Your task to perform on an android device: turn on location history Image 0: 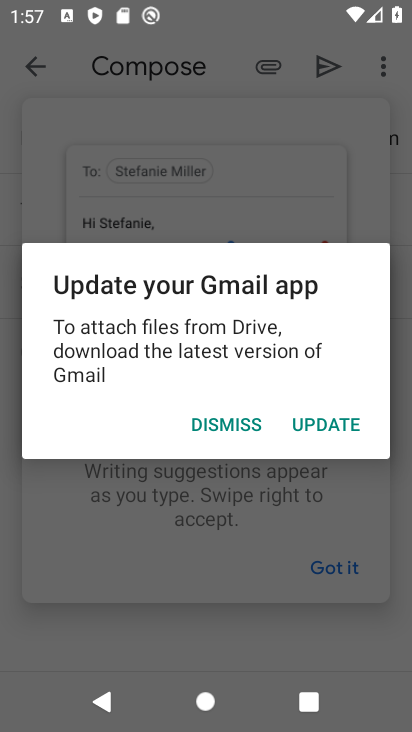
Step 0: press home button
Your task to perform on an android device: turn on location history Image 1: 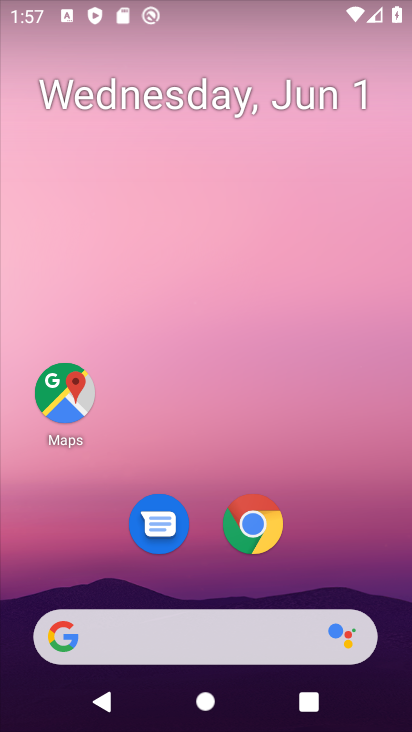
Step 1: drag from (304, 543) to (313, 5)
Your task to perform on an android device: turn on location history Image 2: 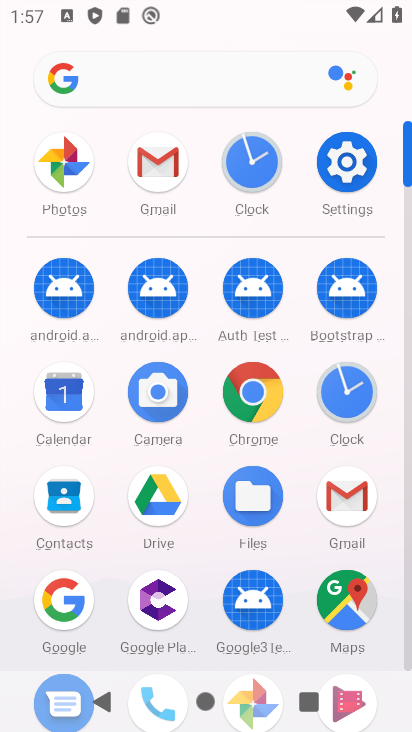
Step 2: click (339, 155)
Your task to perform on an android device: turn on location history Image 3: 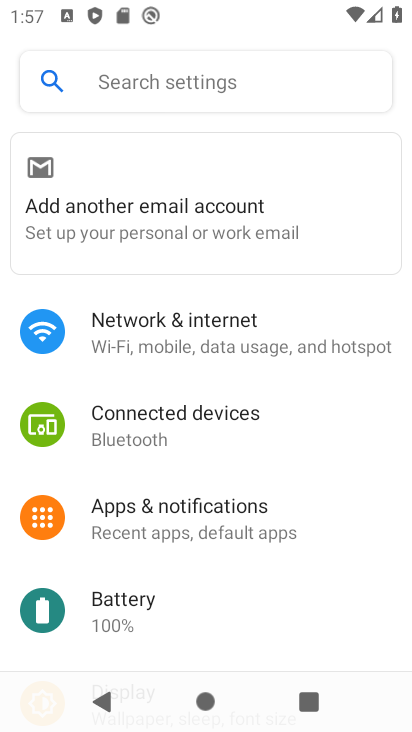
Step 3: drag from (229, 595) to (287, 39)
Your task to perform on an android device: turn on location history Image 4: 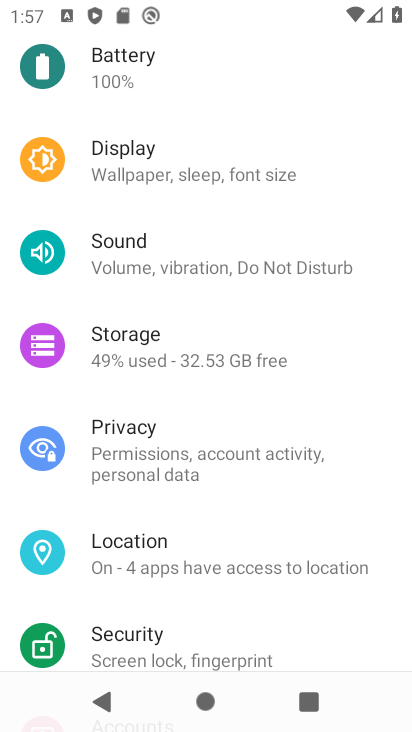
Step 4: click (191, 549)
Your task to perform on an android device: turn on location history Image 5: 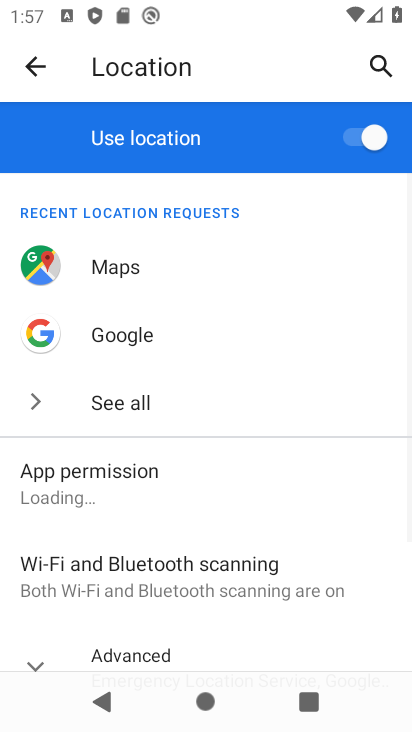
Step 5: drag from (220, 486) to (227, 243)
Your task to perform on an android device: turn on location history Image 6: 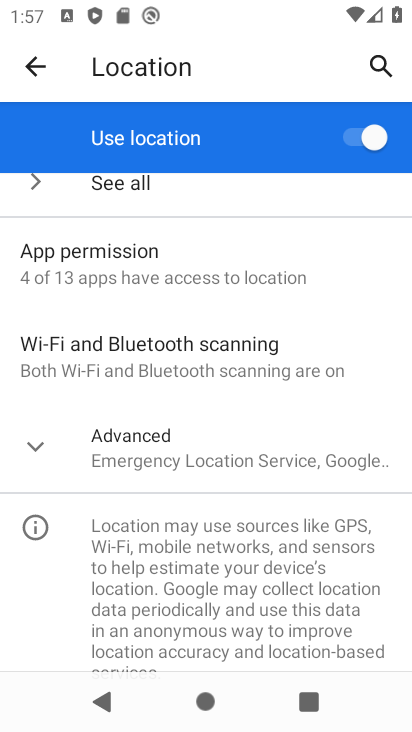
Step 6: click (34, 446)
Your task to perform on an android device: turn on location history Image 7: 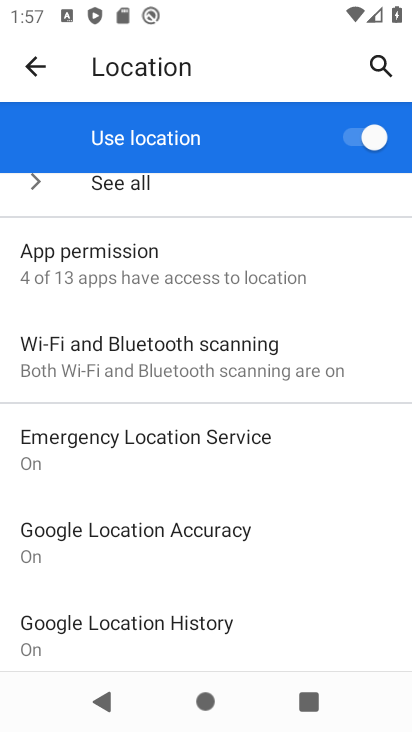
Step 7: task complete